Your task to perform on an android device: all mails in gmail Image 0: 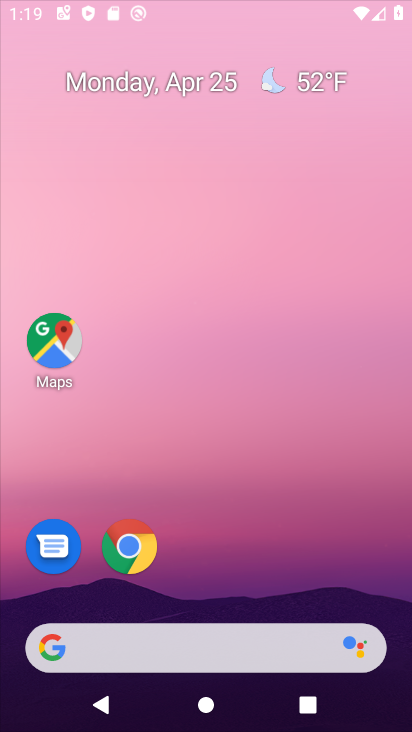
Step 0: click (265, 186)
Your task to perform on an android device: all mails in gmail Image 1: 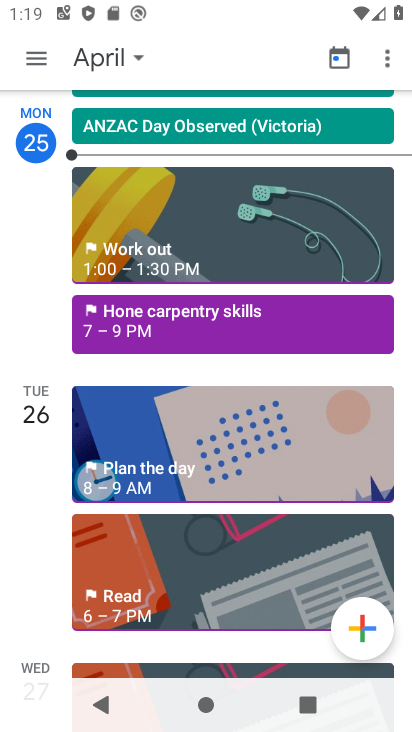
Step 1: click (308, 301)
Your task to perform on an android device: all mails in gmail Image 2: 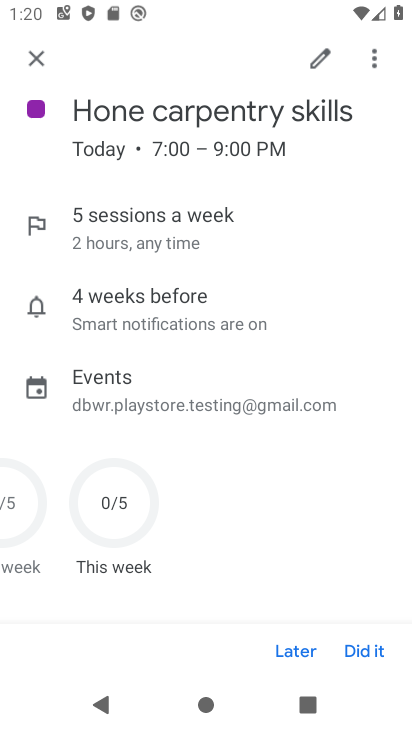
Step 2: press home button
Your task to perform on an android device: all mails in gmail Image 3: 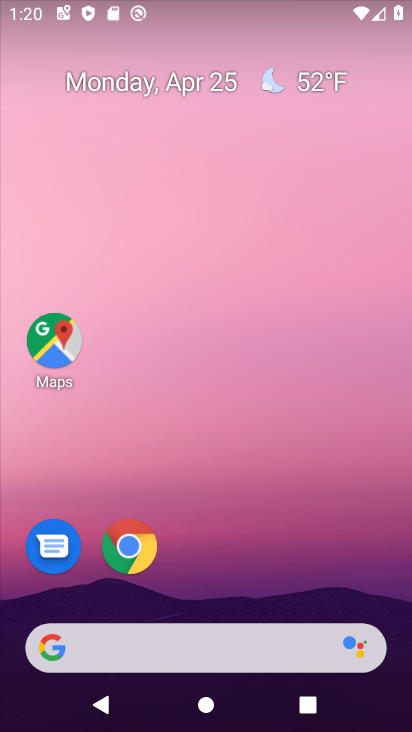
Step 3: drag from (184, 259) to (206, 22)
Your task to perform on an android device: all mails in gmail Image 4: 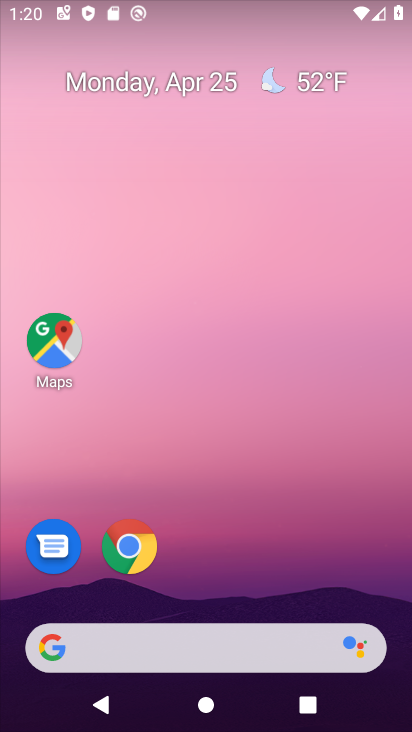
Step 4: drag from (242, 628) to (254, 52)
Your task to perform on an android device: all mails in gmail Image 5: 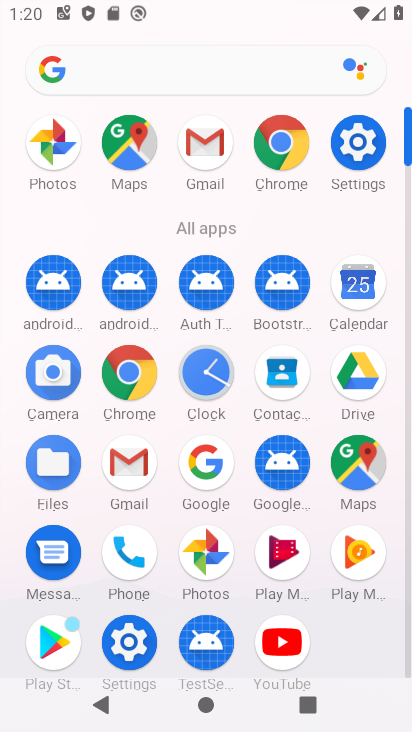
Step 5: click (209, 135)
Your task to perform on an android device: all mails in gmail Image 6: 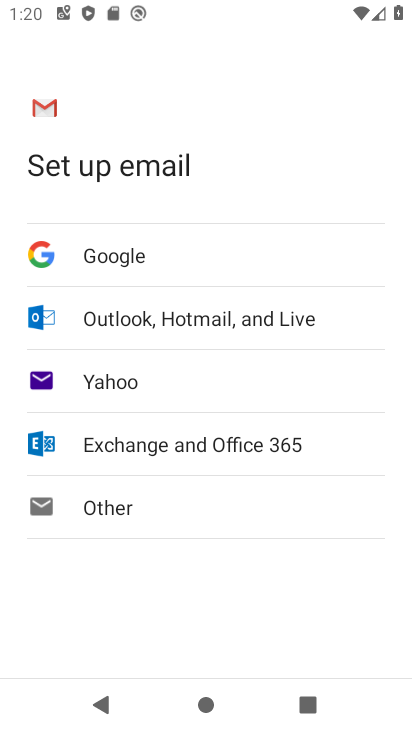
Step 6: press back button
Your task to perform on an android device: all mails in gmail Image 7: 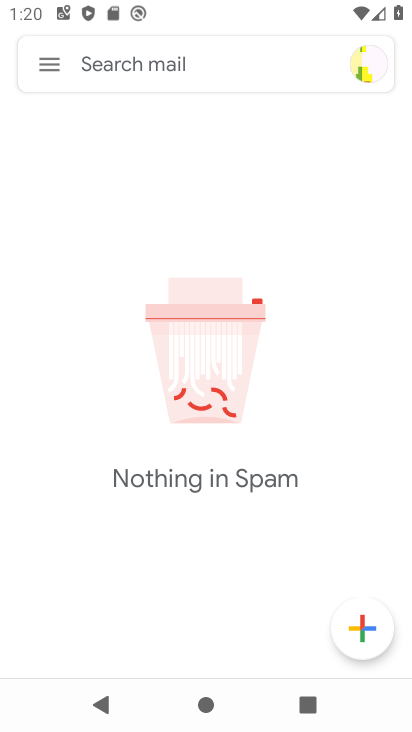
Step 7: click (41, 60)
Your task to perform on an android device: all mails in gmail Image 8: 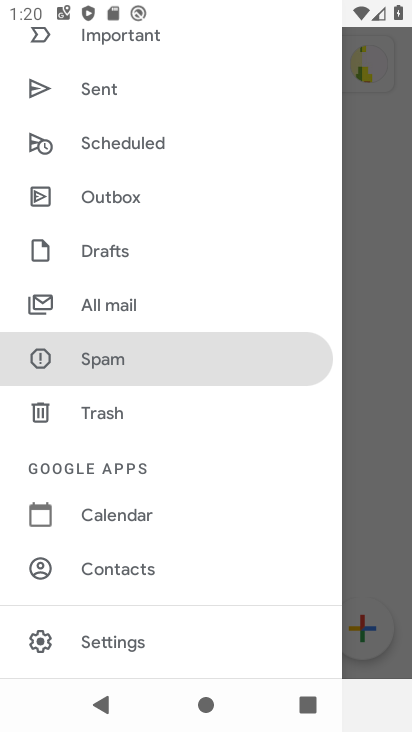
Step 8: click (115, 301)
Your task to perform on an android device: all mails in gmail Image 9: 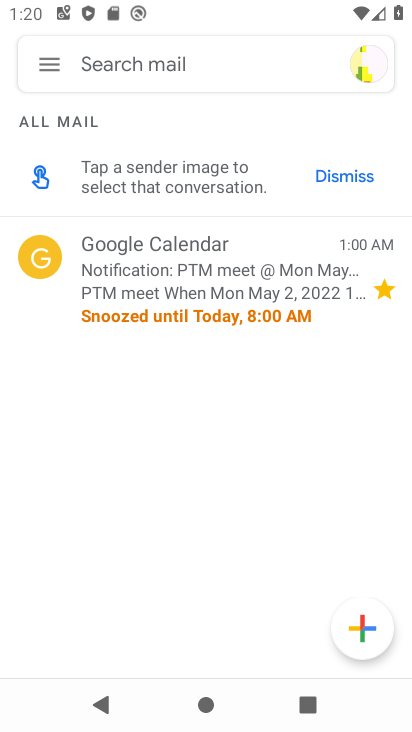
Step 9: task complete